Your task to perform on an android device: Open calendar and show me the first week of next month Image 0: 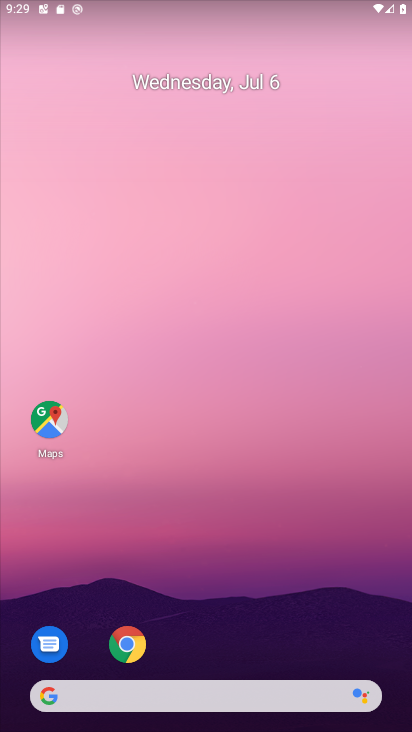
Step 0: drag from (215, 648) to (206, 72)
Your task to perform on an android device: Open calendar and show me the first week of next month Image 1: 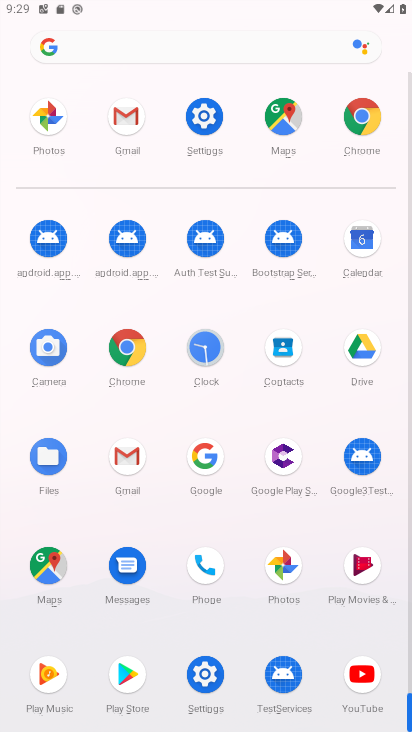
Step 1: click (386, 243)
Your task to perform on an android device: Open calendar and show me the first week of next month Image 2: 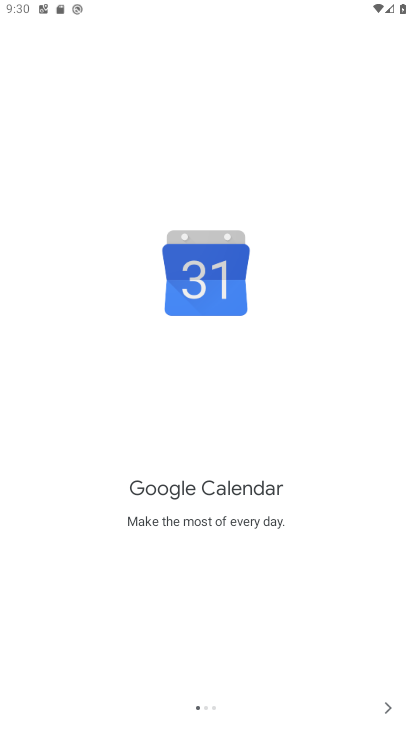
Step 2: click (389, 704)
Your task to perform on an android device: Open calendar and show me the first week of next month Image 3: 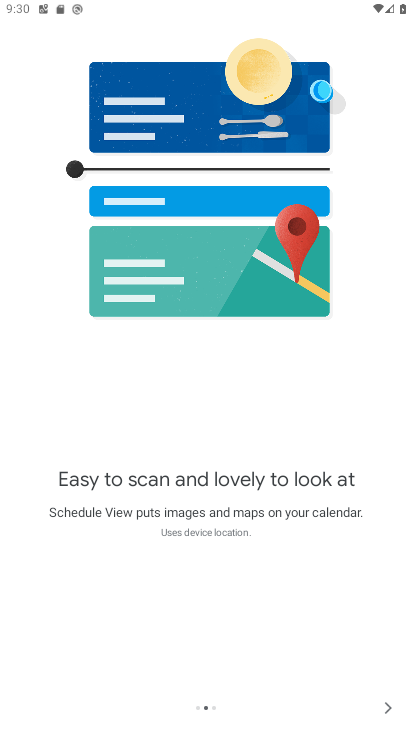
Step 3: click (378, 703)
Your task to perform on an android device: Open calendar and show me the first week of next month Image 4: 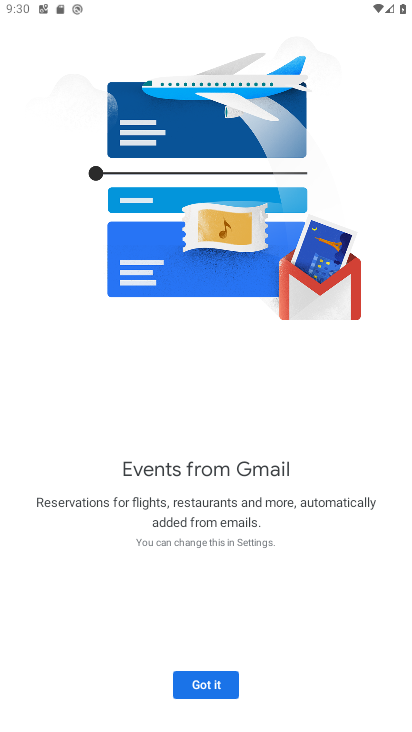
Step 4: click (208, 676)
Your task to perform on an android device: Open calendar and show me the first week of next month Image 5: 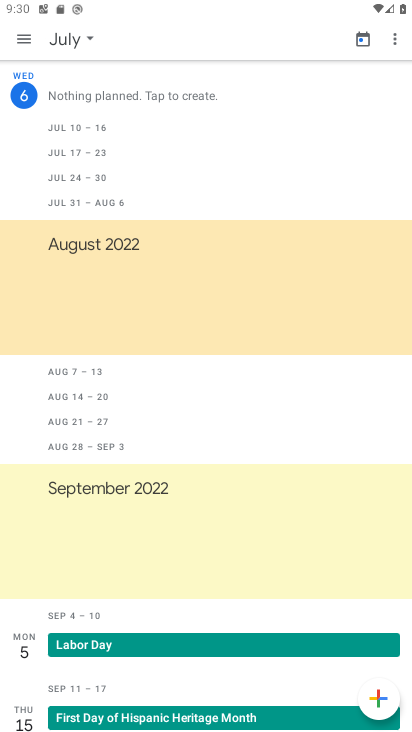
Step 5: click (86, 38)
Your task to perform on an android device: Open calendar and show me the first week of next month Image 6: 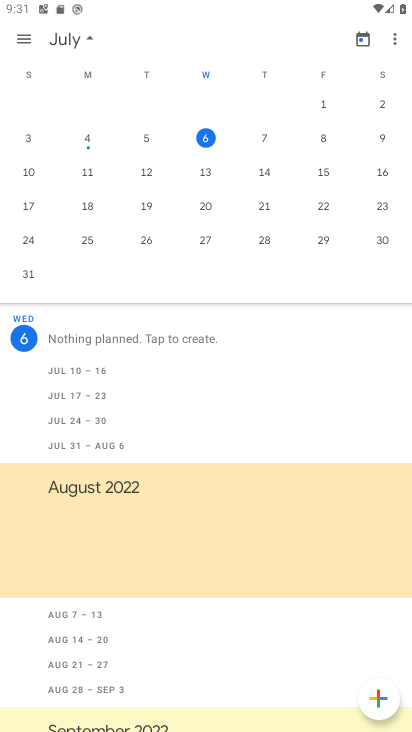
Step 6: drag from (345, 214) to (0, 207)
Your task to perform on an android device: Open calendar and show me the first week of next month Image 7: 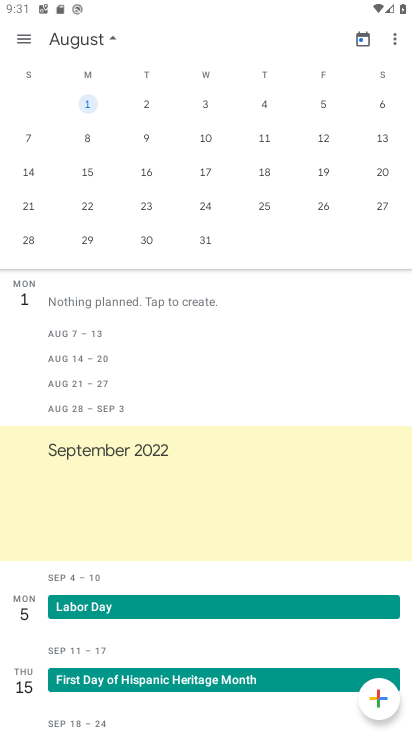
Step 7: click (95, 108)
Your task to perform on an android device: Open calendar and show me the first week of next month Image 8: 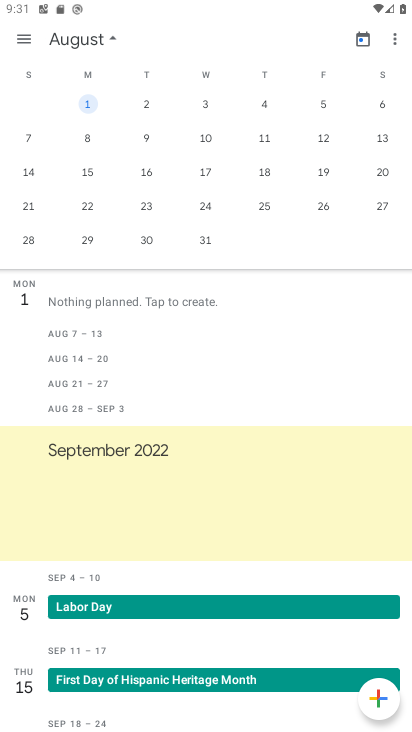
Step 8: task complete